Your task to perform on an android device: open device folders in google photos Image 0: 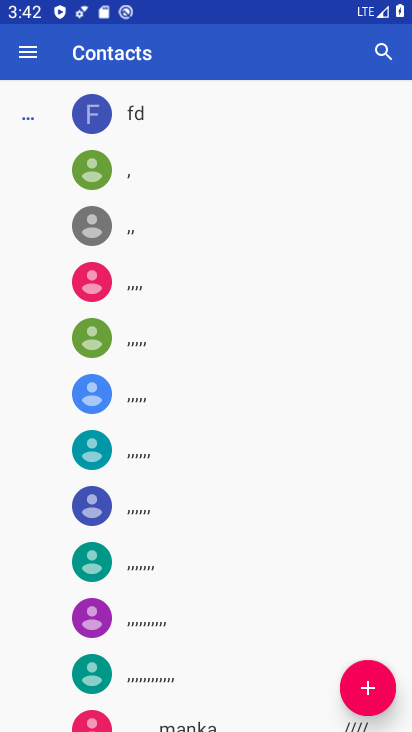
Step 0: press home button
Your task to perform on an android device: open device folders in google photos Image 1: 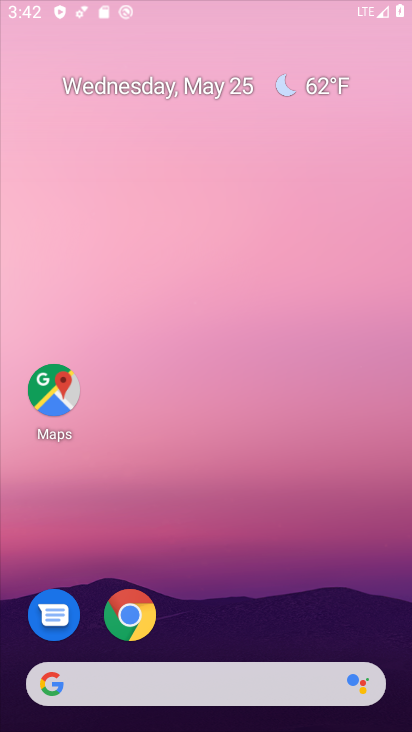
Step 1: drag from (323, 505) to (186, 88)
Your task to perform on an android device: open device folders in google photos Image 2: 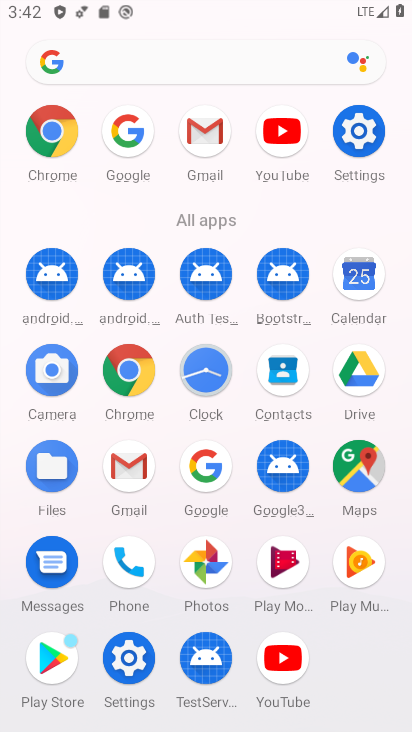
Step 2: click (214, 564)
Your task to perform on an android device: open device folders in google photos Image 3: 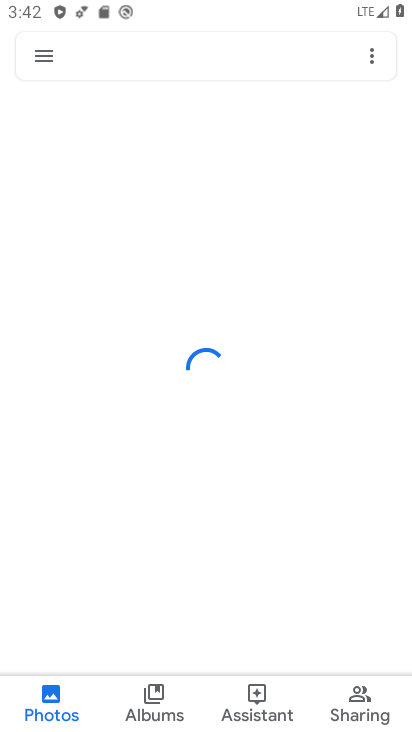
Step 3: click (43, 59)
Your task to perform on an android device: open device folders in google photos Image 4: 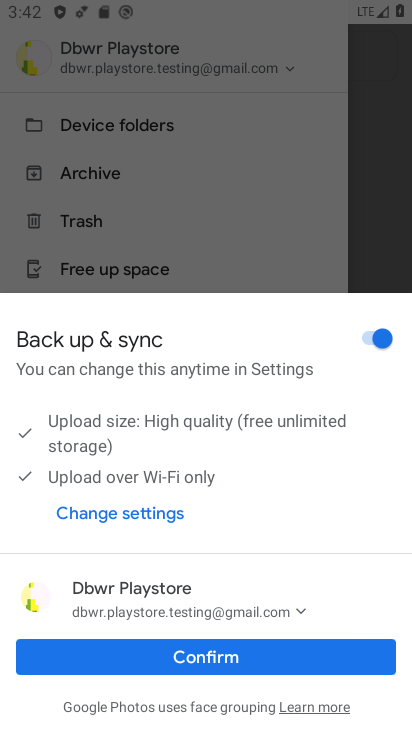
Step 4: click (245, 652)
Your task to perform on an android device: open device folders in google photos Image 5: 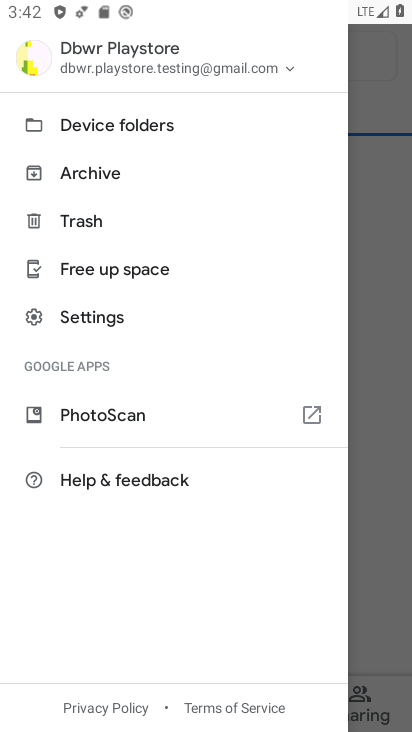
Step 5: click (152, 121)
Your task to perform on an android device: open device folders in google photos Image 6: 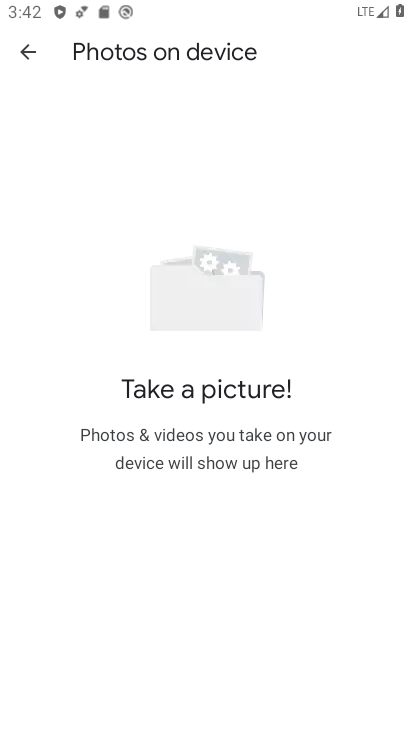
Step 6: task complete